Your task to perform on an android device: Open Google Maps and go to "Timeline" Image 0: 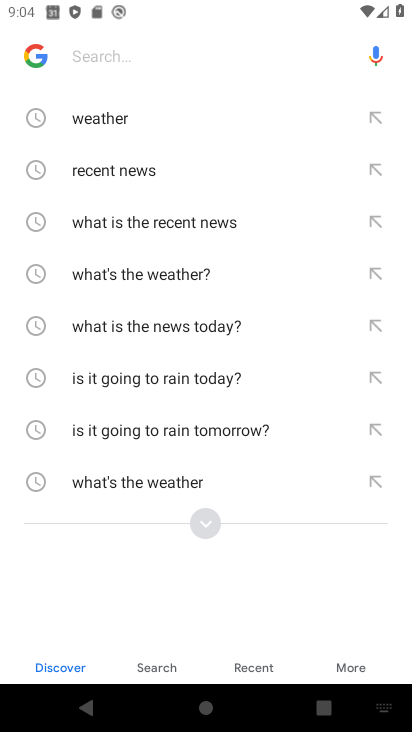
Step 0: press home button
Your task to perform on an android device: Open Google Maps and go to "Timeline" Image 1: 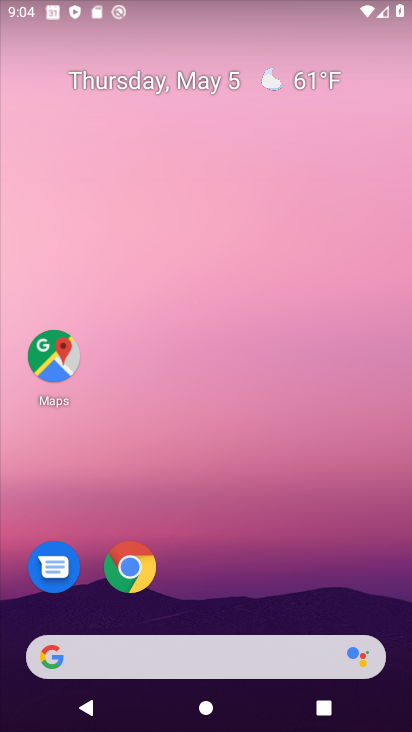
Step 1: drag from (224, 730) to (189, 208)
Your task to perform on an android device: Open Google Maps and go to "Timeline" Image 2: 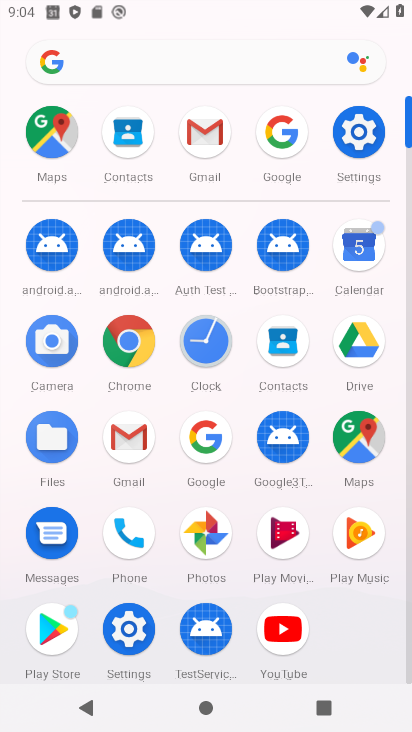
Step 2: click (354, 432)
Your task to perform on an android device: Open Google Maps and go to "Timeline" Image 3: 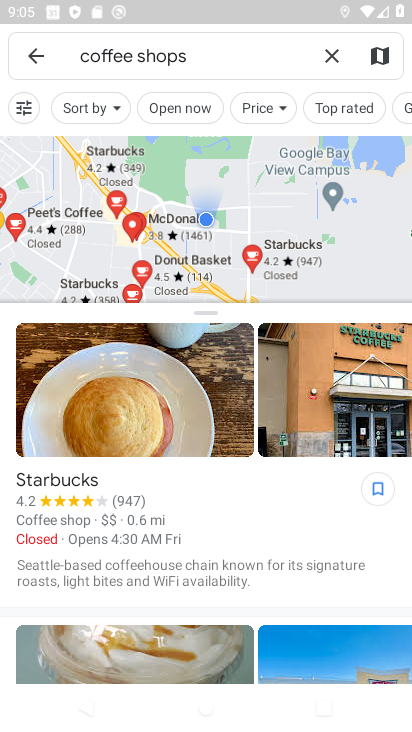
Step 3: click (36, 55)
Your task to perform on an android device: Open Google Maps and go to "Timeline" Image 4: 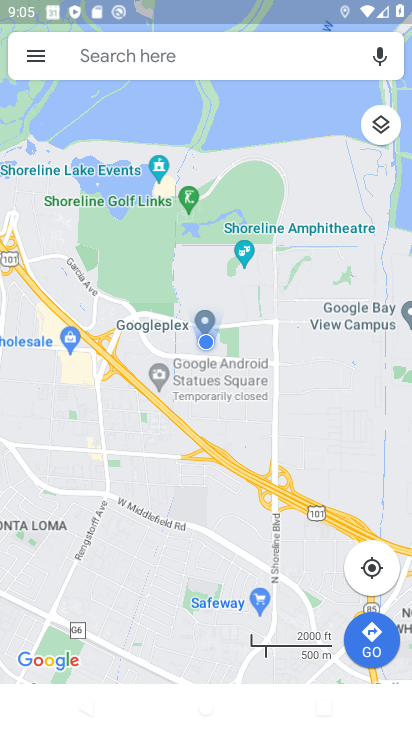
Step 4: click (37, 61)
Your task to perform on an android device: Open Google Maps and go to "Timeline" Image 5: 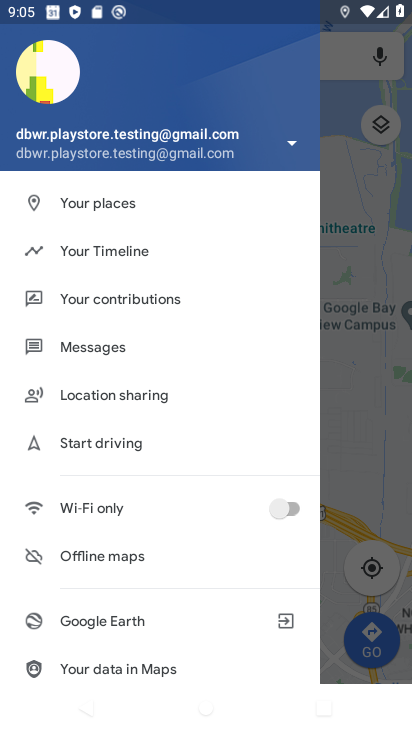
Step 5: click (98, 252)
Your task to perform on an android device: Open Google Maps and go to "Timeline" Image 6: 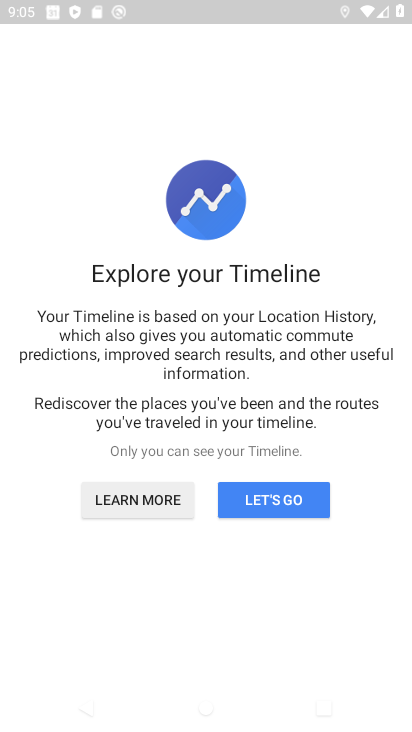
Step 6: click (290, 500)
Your task to perform on an android device: Open Google Maps and go to "Timeline" Image 7: 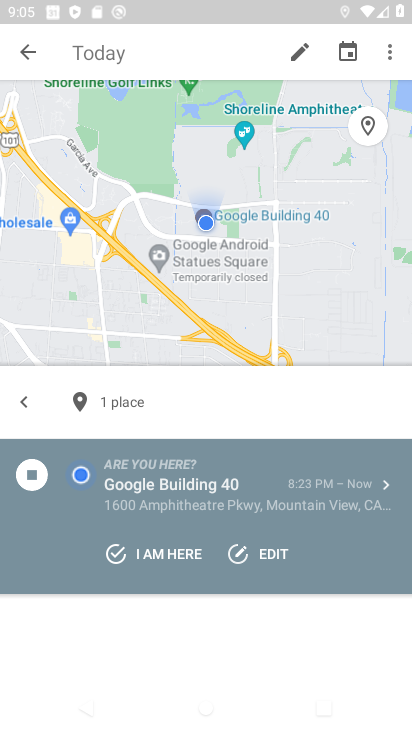
Step 7: task complete